Your task to perform on an android device: Is it going to rain tomorrow? Image 0: 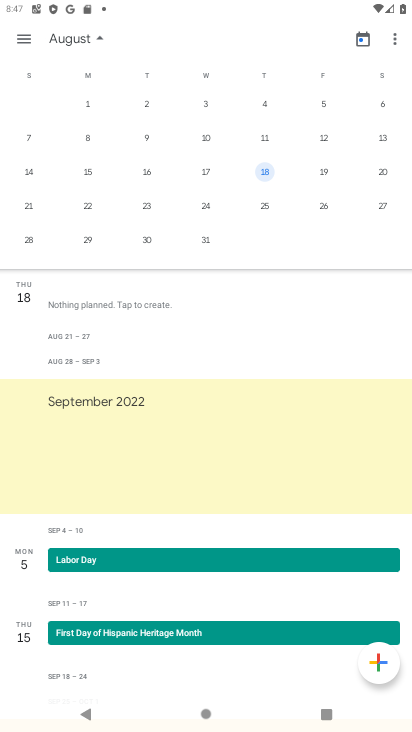
Step 0: press home button
Your task to perform on an android device: Is it going to rain tomorrow? Image 1: 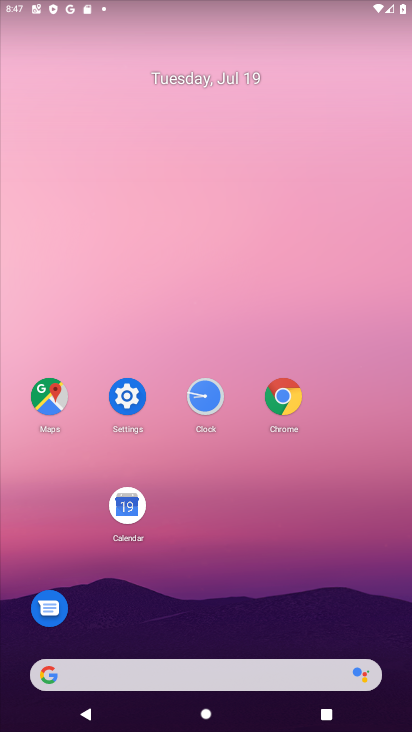
Step 1: drag from (0, 228) to (406, 263)
Your task to perform on an android device: Is it going to rain tomorrow? Image 2: 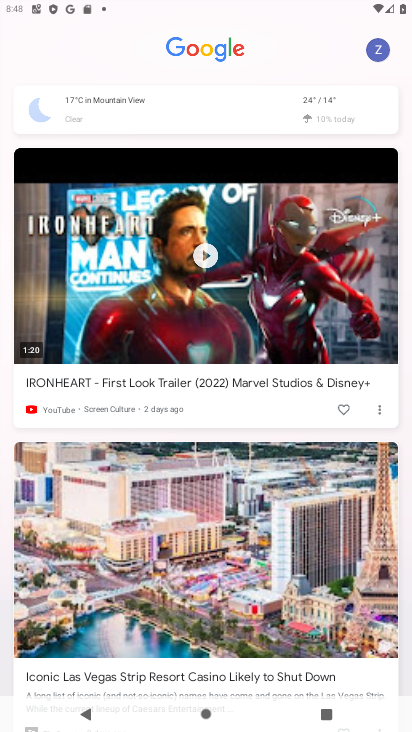
Step 2: click (316, 110)
Your task to perform on an android device: Is it going to rain tomorrow? Image 3: 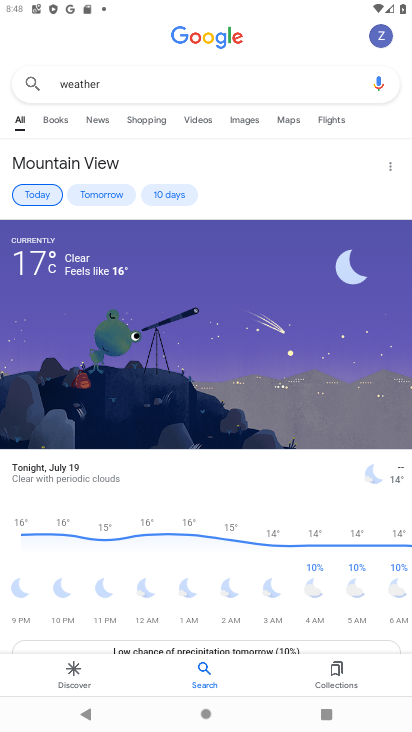
Step 3: task complete